Your task to perform on an android device: Do I have any events today? Image 0: 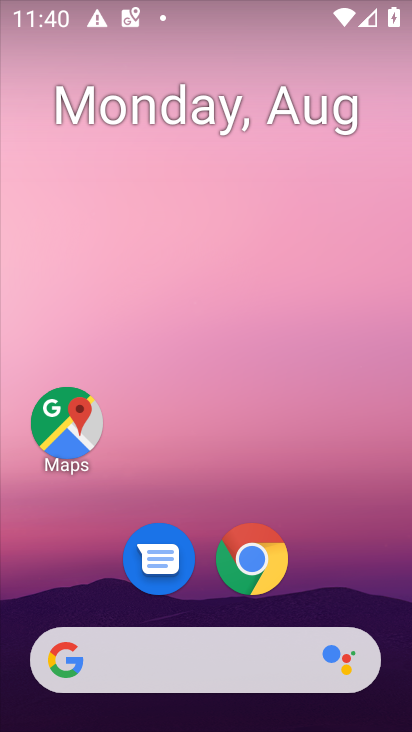
Step 0: drag from (204, 539) to (191, 8)
Your task to perform on an android device: Do I have any events today? Image 1: 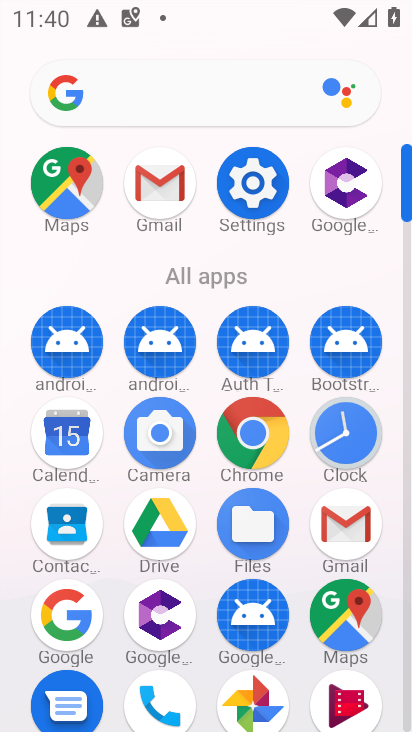
Step 1: click (74, 441)
Your task to perform on an android device: Do I have any events today? Image 2: 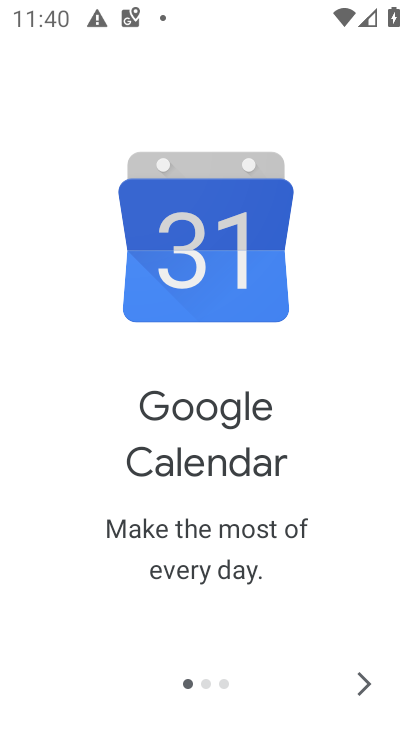
Step 2: click (366, 670)
Your task to perform on an android device: Do I have any events today? Image 3: 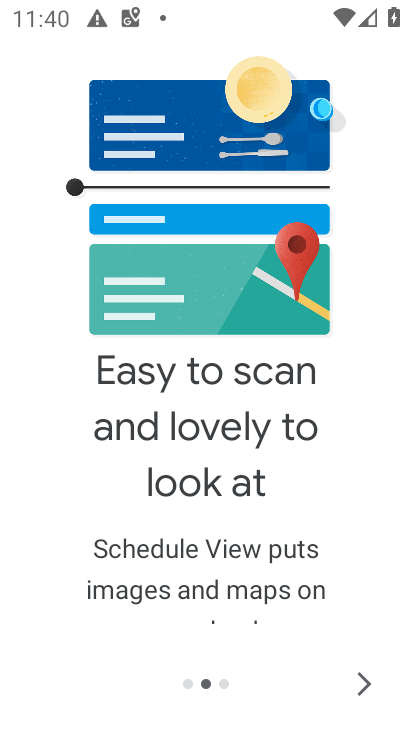
Step 3: click (357, 679)
Your task to perform on an android device: Do I have any events today? Image 4: 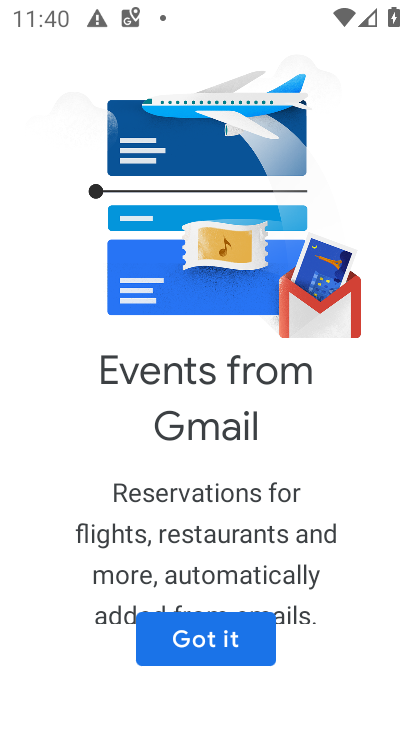
Step 4: click (229, 633)
Your task to perform on an android device: Do I have any events today? Image 5: 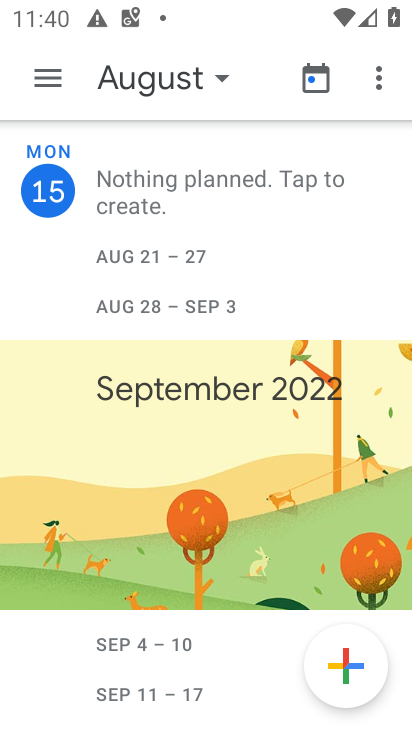
Step 5: click (43, 84)
Your task to perform on an android device: Do I have any events today? Image 6: 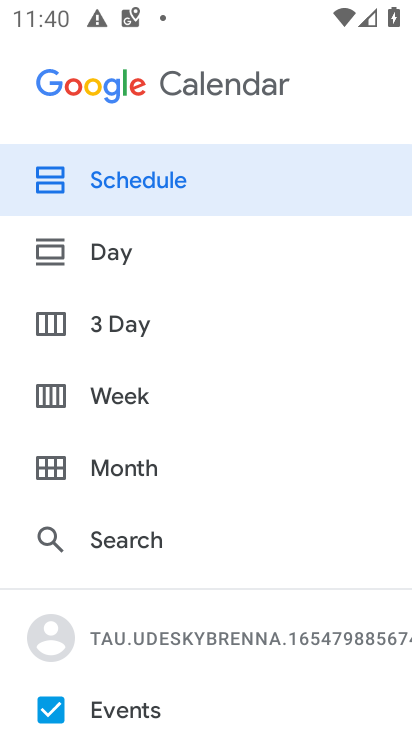
Step 6: drag from (122, 508) to (138, 276)
Your task to perform on an android device: Do I have any events today? Image 7: 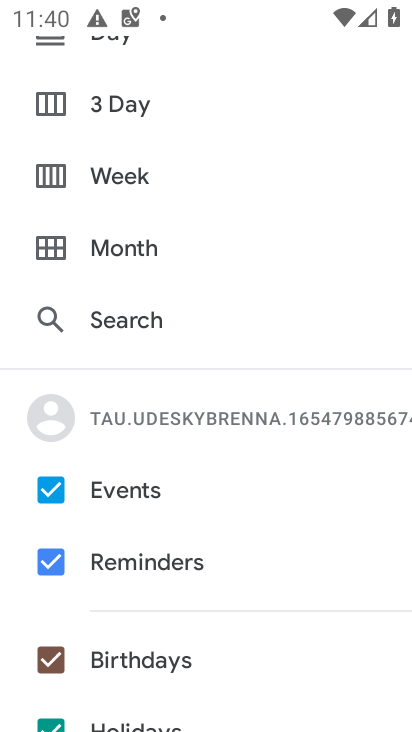
Step 7: click (105, 531)
Your task to perform on an android device: Do I have any events today? Image 8: 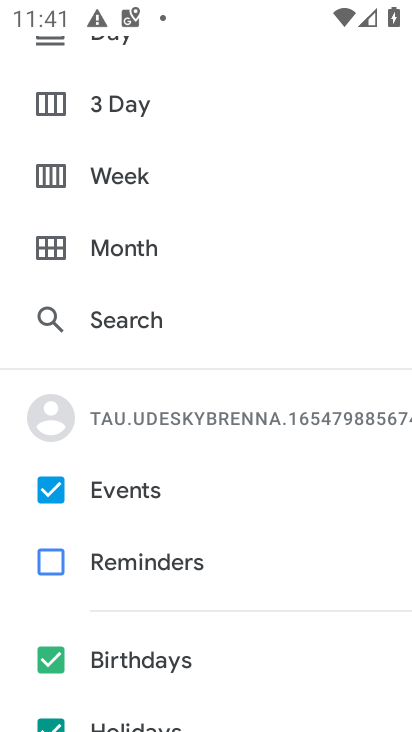
Step 8: click (102, 659)
Your task to perform on an android device: Do I have any events today? Image 9: 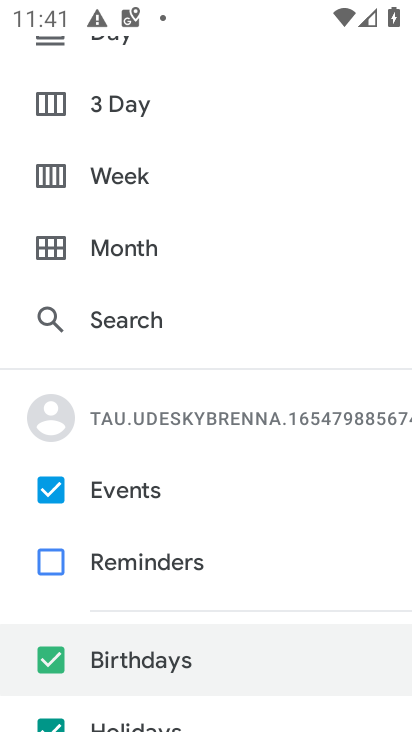
Step 9: drag from (95, 673) to (104, 471)
Your task to perform on an android device: Do I have any events today? Image 10: 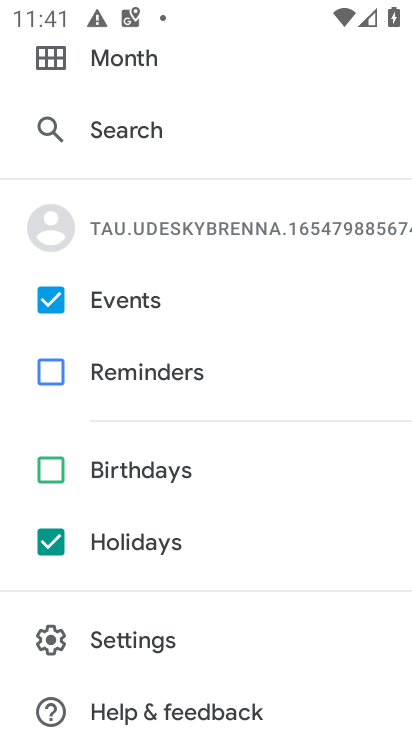
Step 10: click (104, 542)
Your task to perform on an android device: Do I have any events today? Image 11: 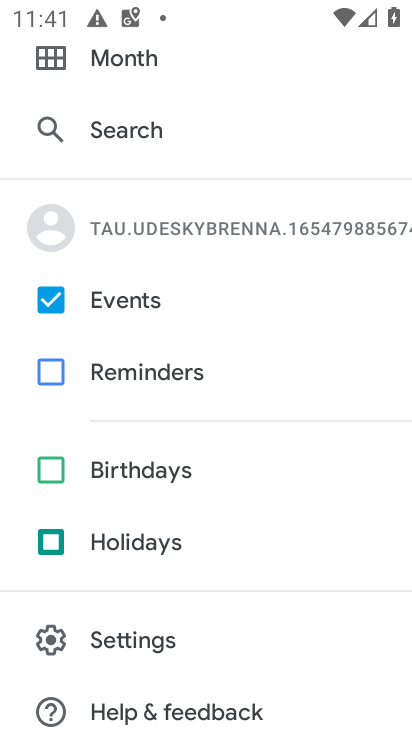
Step 11: drag from (169, 136) to (168, 547)
Your task to perform on an android device: Do I have any events today? Image 12: 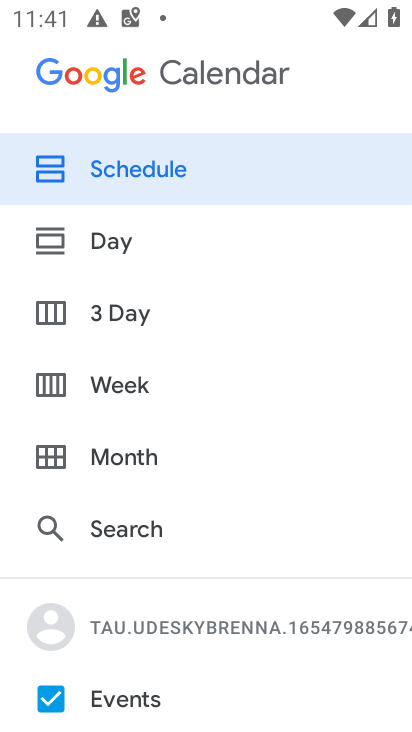
Step 12: click (128, 258)
Your task to perform on an android device: Do I have any events today? Image 13: 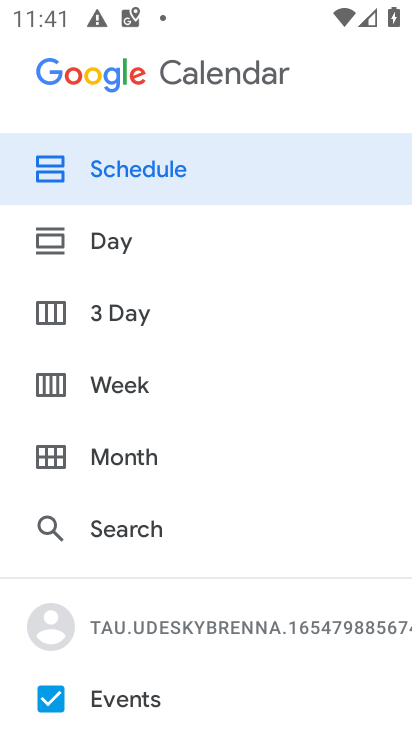
Step 13: click (118, 248)
Your task to perform on an android device: Do I have any events today? Image 14: 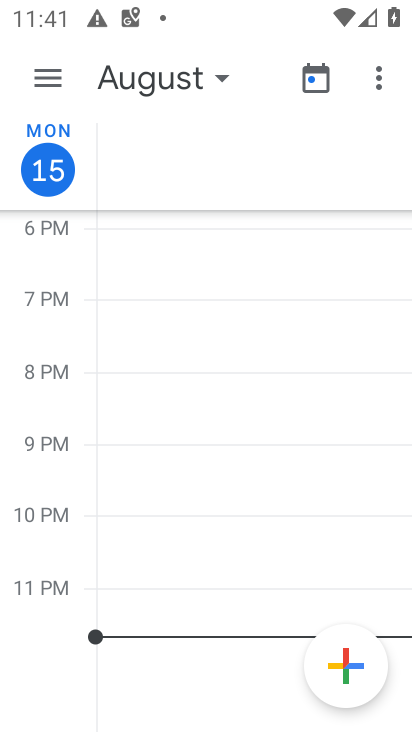
Step 14: task complete